Your task to perform on an android device: open sync settings in chrome Image 0: 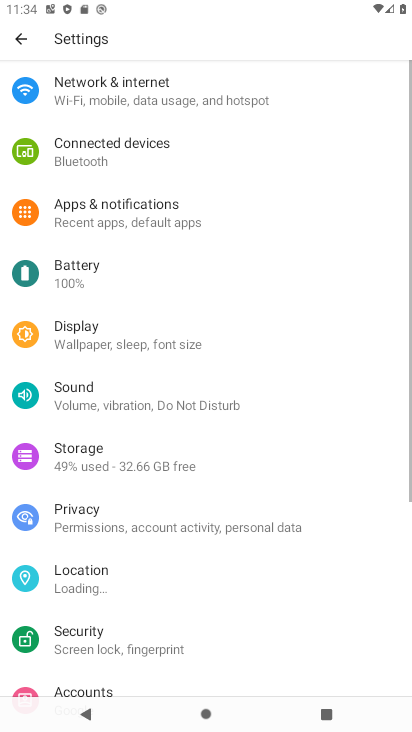
Step 0: press home button
Your task to perform on an android device: open sync settings in chrome Image 1: 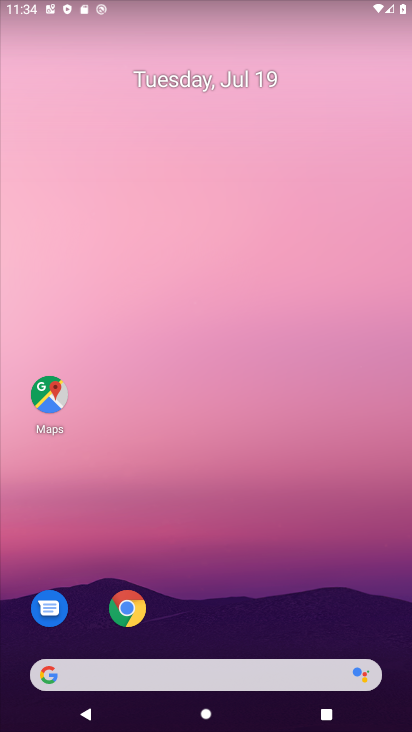
Step 1: click (128, 611)
Your task to perform on an android device: open sync settings in chrome Image 2: 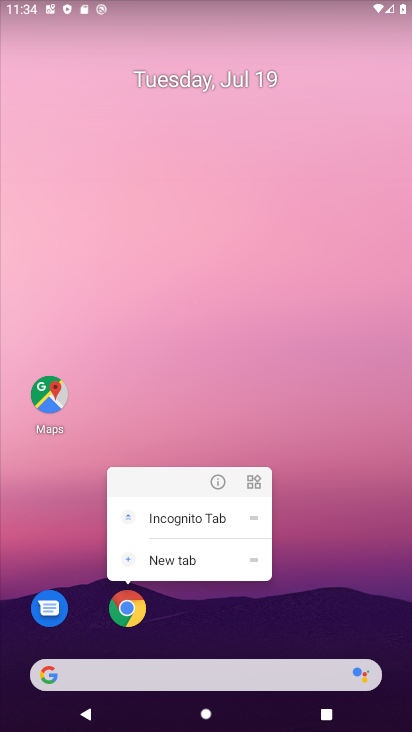
Step 2: click (128, 609)
Your task to perform on an android device: open sync settings in chrome Image 3: 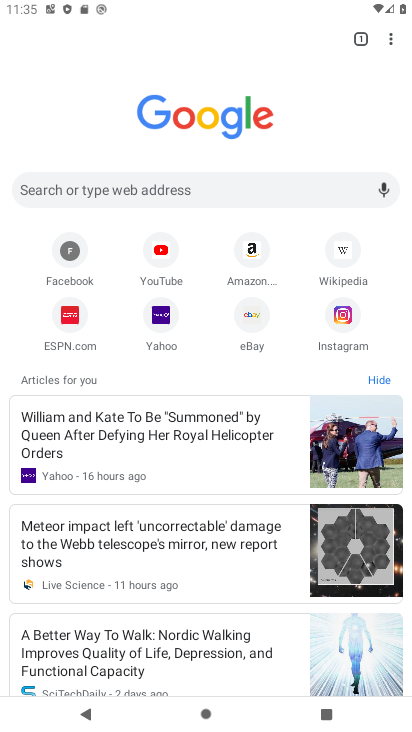
Step 3: click (388, 37)
Your task to perform on an android device: open sync settings in chrome Image 4: 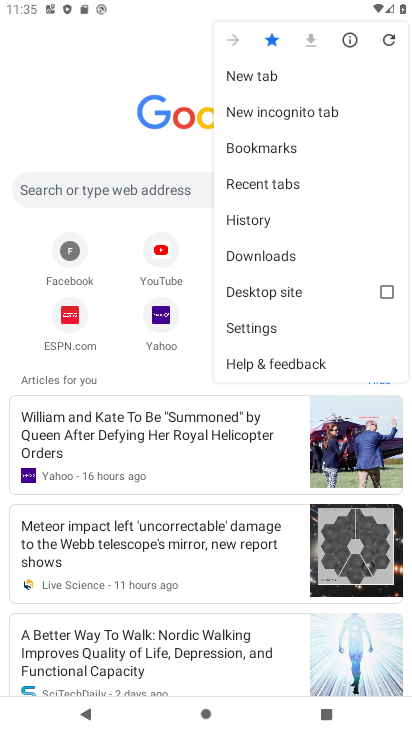
Step 4: click (255, 325)
Your task to perform on an android device: open sync settings in chrome Image 5: 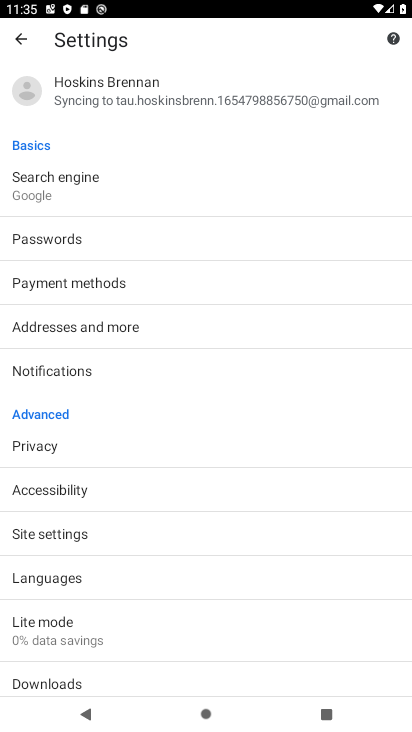
Step 5: click (72, 538)
Your task to perform on an android device: open sync settings in chrome Image 6: 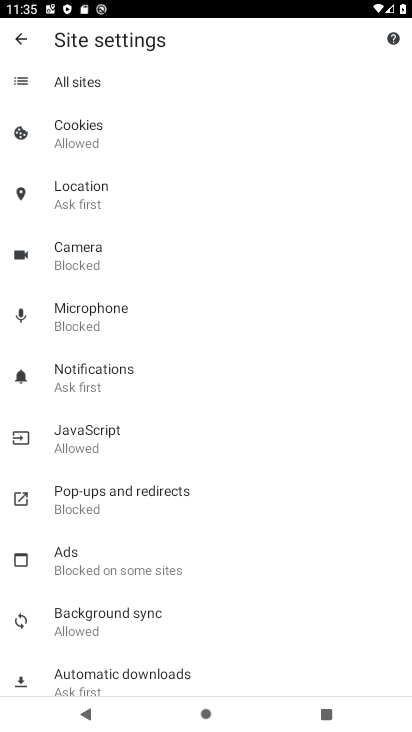
Step 6: click (132, 620)
Your task to perform on an android device: open sync settings in chrome Image 7: 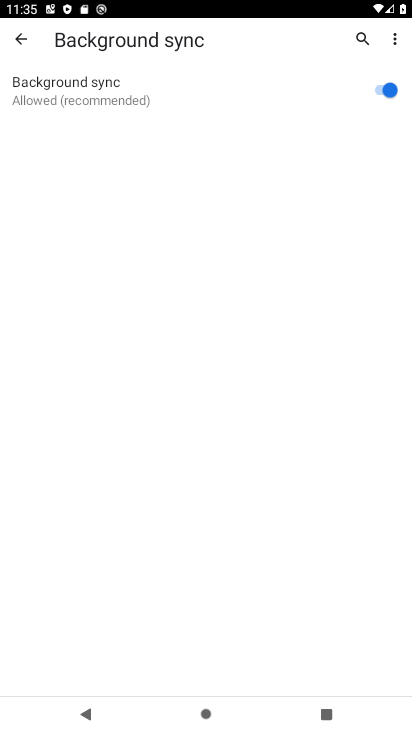
Step 7: task complete